Your task to perform on an android device: move an email to a new category in the gmail app Image 0: 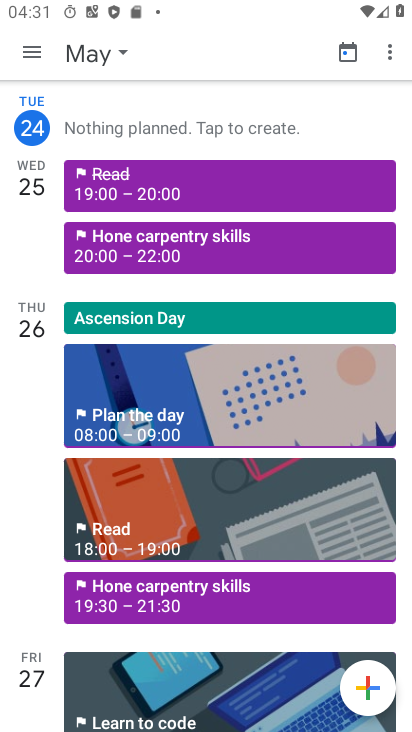
Step 0: press home button
Your task to perform on an android device: move an email to a new category in the gmail app Image 1: 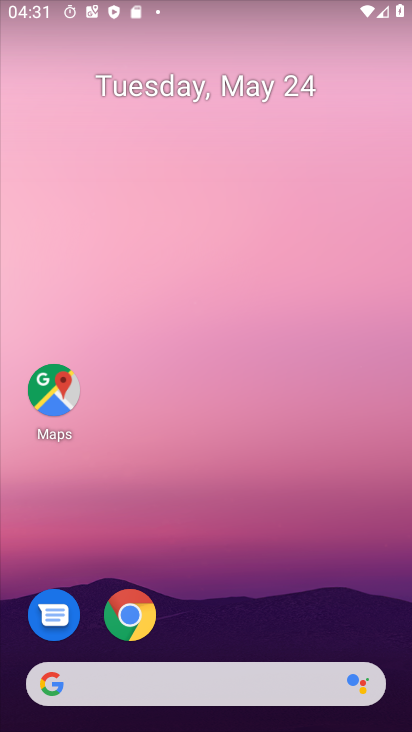
Step 1: drag from (204, 595) to (243, 136)
Your task to perform on an android device: move an email to a new category in the gmail app Image 2: 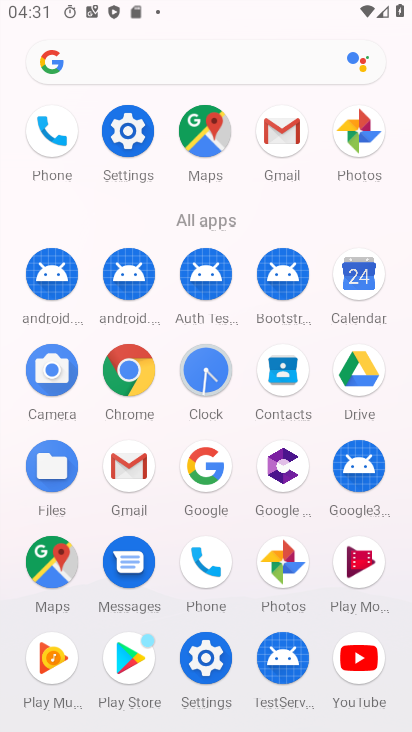
Step 2: click (282, 132)
Your task to perform on an android device: move an email to a new category in the gmail app Image 3: 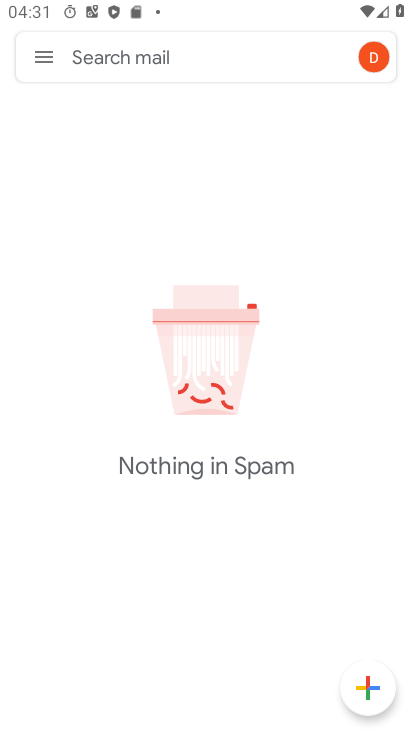
Step 3: click (31, 57)
Your task to perform on an android device: move an email to a new category in the gmail app Image 4: 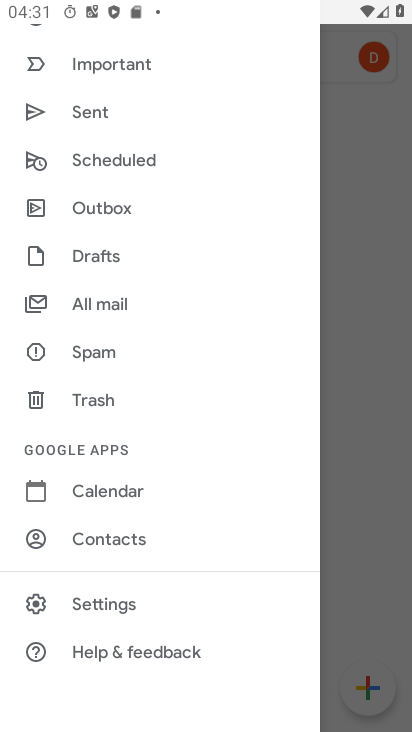
Step 4: click (123, 300)
Your task to perform on an android device: move an email to a new category in the gmail app Image 5: 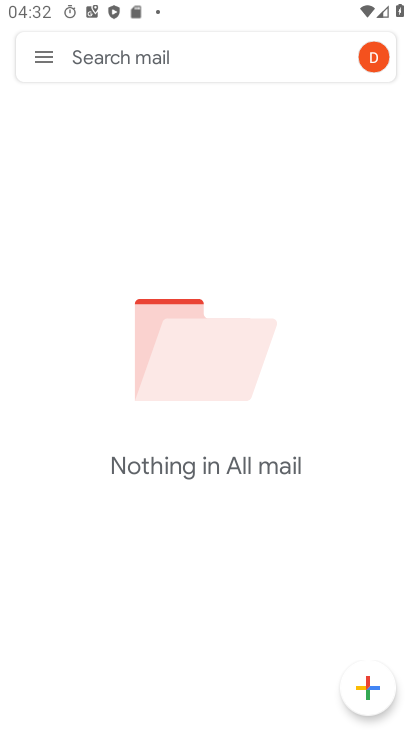
Step 5: task complete